Your task to perform on an android device: turn pop-ups on in chrome Image 0: 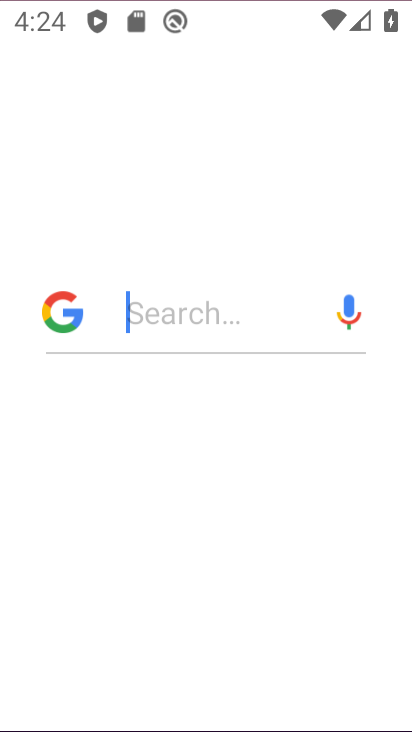
Step 0: press home button
Your task to perform on an android device: turn pop-ups on in chrome Image 1: 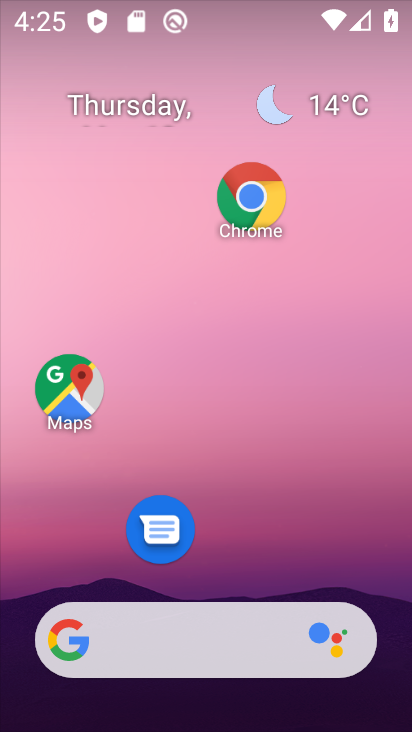
Step 1: click (243, 187)
Your task to perform on an android device: turn pop-ups on in chrome Image 2: 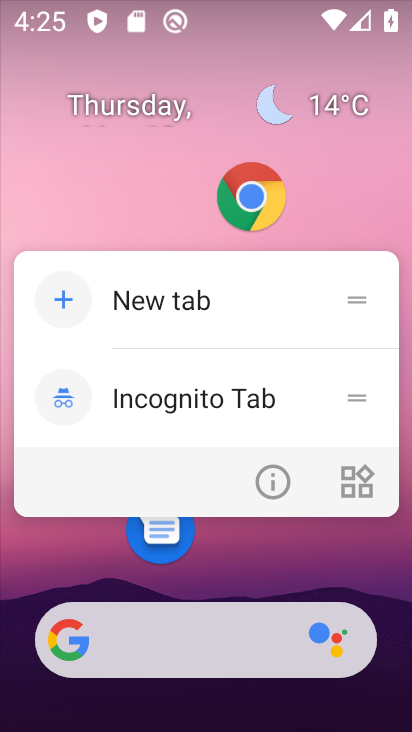
Step 2: click (259, 191)
Your task to perform on an android device: turn pop-ups on in chrome Image 3: 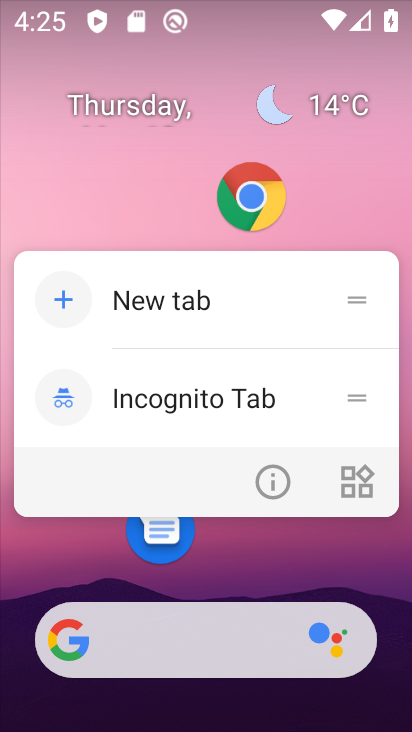
Step 3: click (243, 187)
Your task to perform on an android device: turn pop-ups on in chrome Image 4: 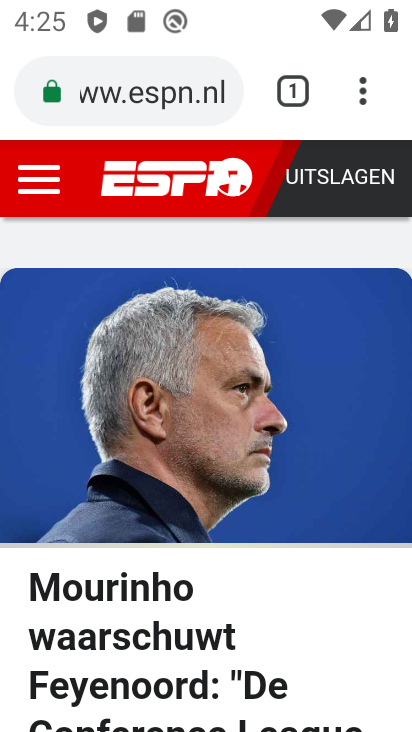
Step 4: click (361, 92)
Your task to perform on an android device: turn pop-ups on in chrome Image 5: 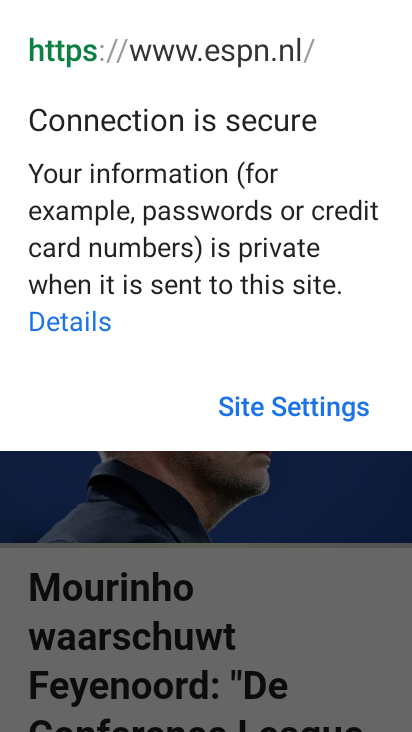
Step 5: click (258, 510)
Your task to perform on an android device: turn pop-ups on in chrome Image 6: 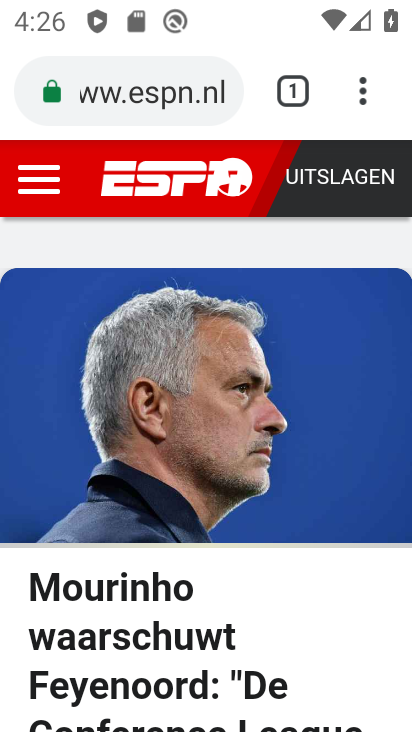
Step 6: click (354, 85)
Your task to perform on an android device: turn pop-ups on in chrome Image 7: 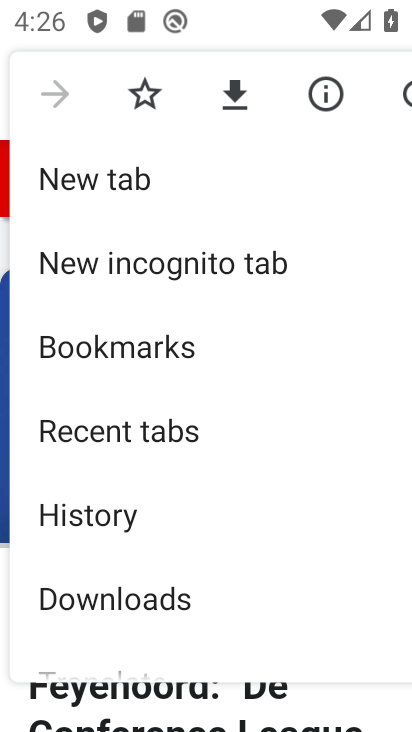
Step 7: drag from (200, 607) to (276, 134)
Your task to perform on an android device: turn pop-ups on in chrome Image 8: 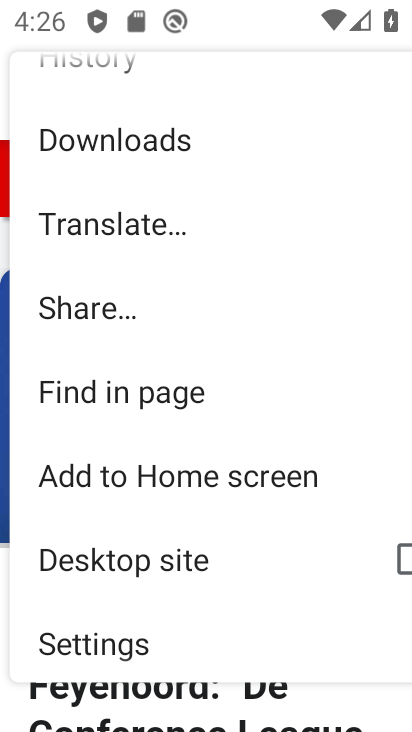
Step 8: click (152, 636)
Your task to perform on an android device: turn pop-ups on in chrome Image 9: 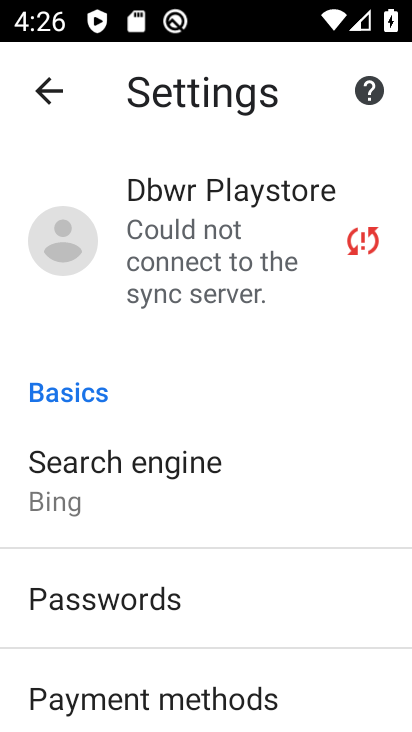
Step 9: drag from (196, 652) to (236, 205)
Your task to perform on an android device: turn pop-ups on in chrome Image 10: 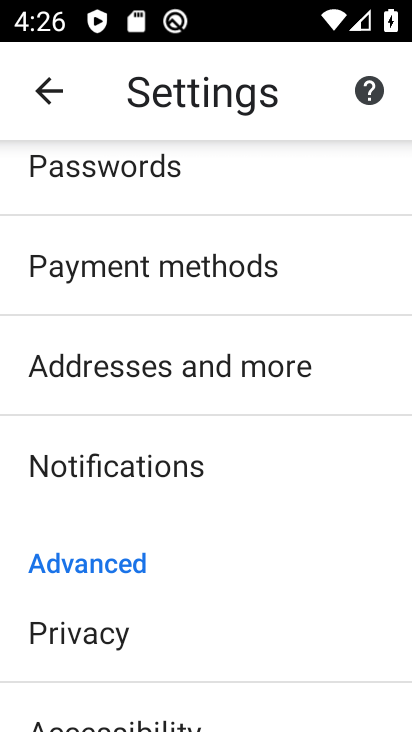
Step 10: drag from (175, 657) to (239, 201)
Your task to perform on an android device: turn pop-ups on in chrome Image 11: 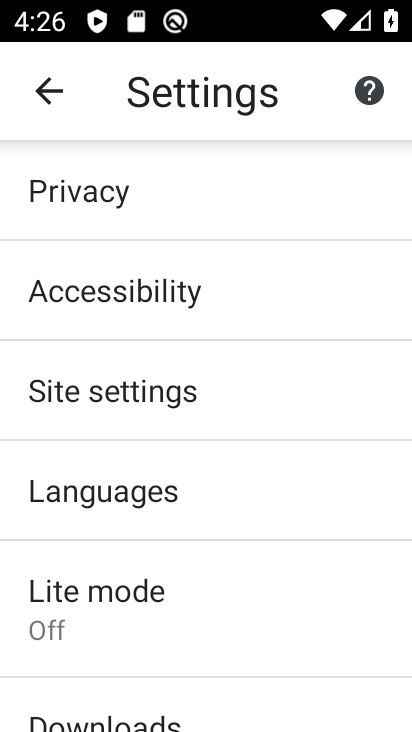
Step 11: click (211, 395)
Your task to perform on an android device: turn pop-ups on in chrome Image 12: 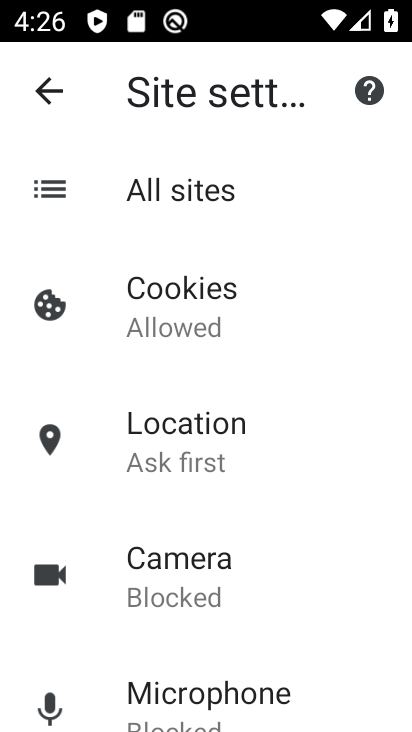
Step 12: drag from (239, 644) to (279, 231)
Your task to perform on an android device: turn pop-ups on in chrome Image 13: 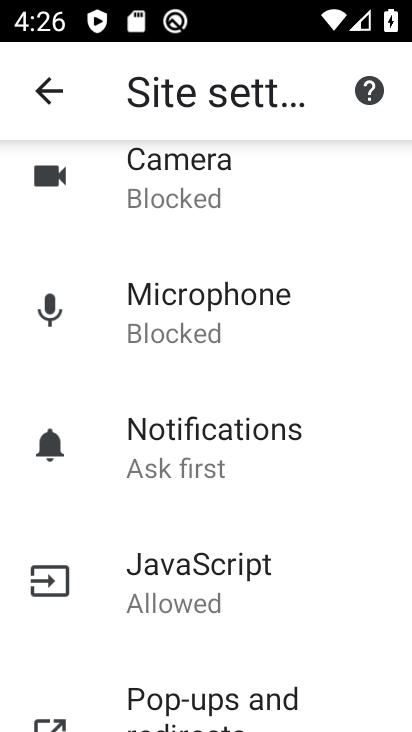
Step 13: click (244, 689)
Your task to perform on an android device: turn pop-ups on in chrome Image 14: 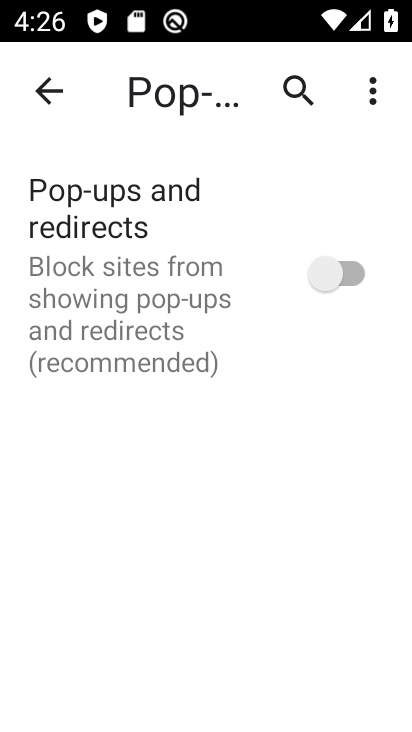
Step 14: click (349, 275)
Your task to perform on an android device: turn pop-ups on in chrome Image 15: 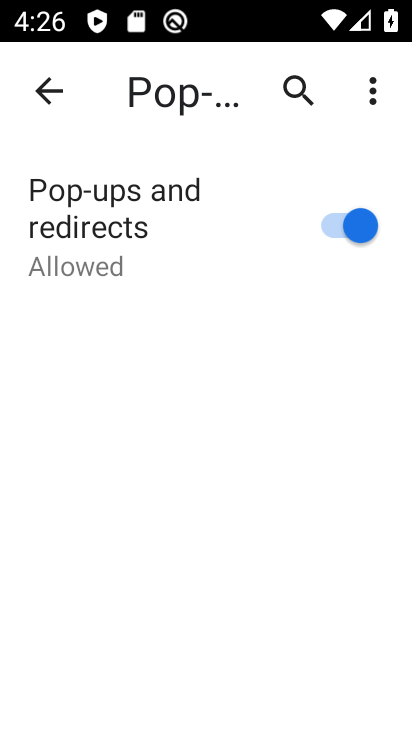
Step 15: task complete